Your task to perform on an android device: turn on showing notifications on the lock screen Image 0: 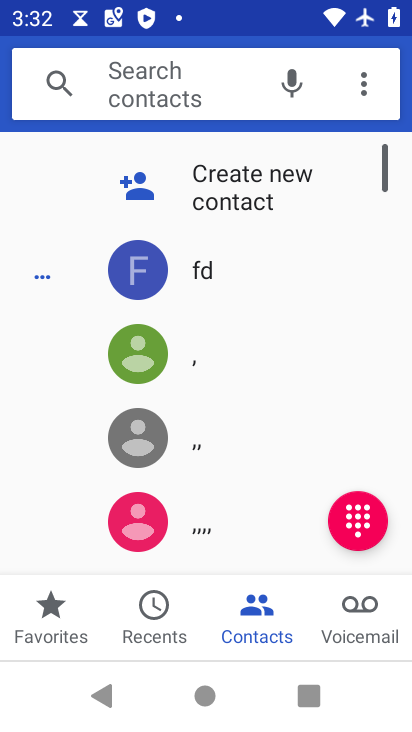
Step 0: press home button
Your task to perform on an android device: turn on showing notifications on the lock screen Image 1: 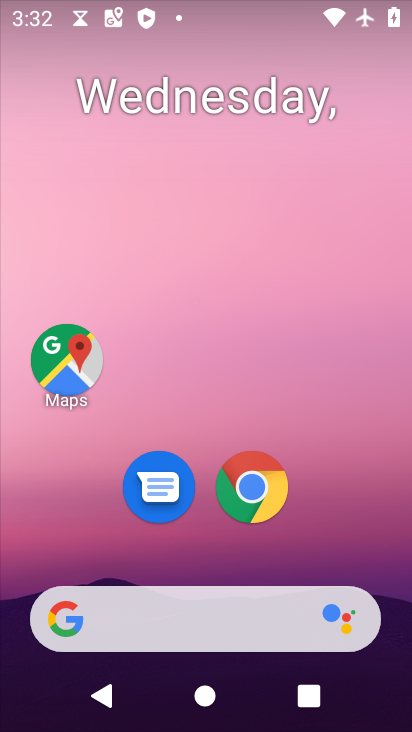
Step 1: drag from (325, 491) to (352, 94)
Your task to perform on an android device: turn on showing notifications on the lock screen Image 2: 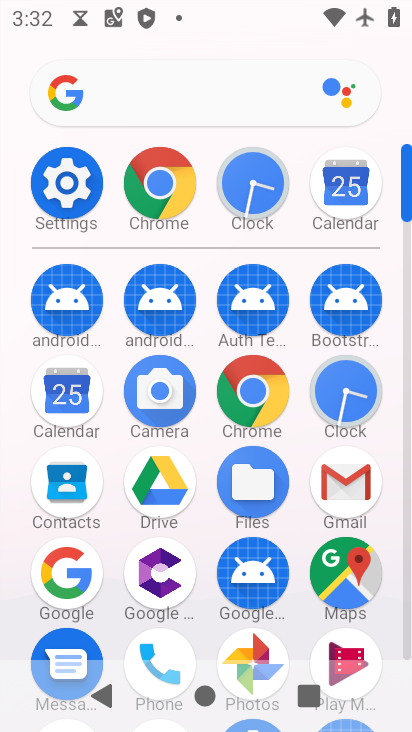
Step 2: drag from (374, 551) to (397, 81)
Your task to perform on an android device: turn on showing notifications on the lock screen Image 3: 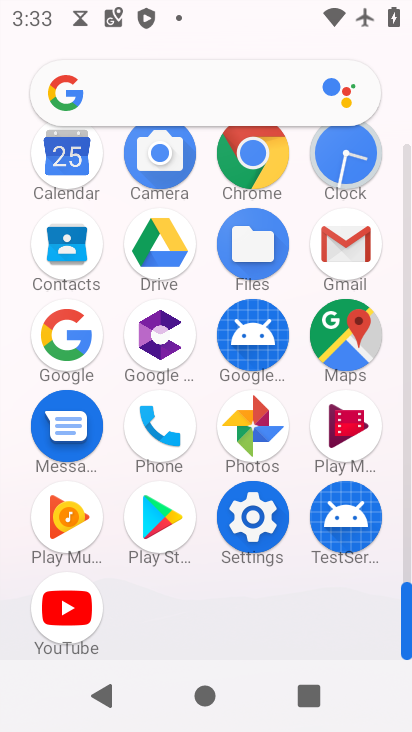
Step 3: click (77, 637)
Your task to perform on an android device: turn on showing notifications on the lock screen Image 4: 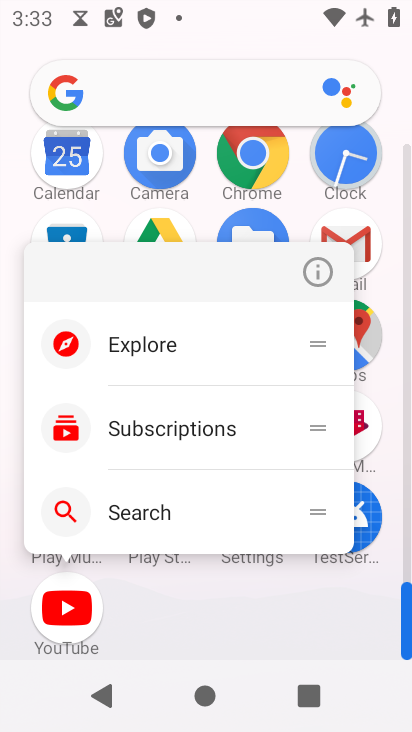
Step 4: click (68, 617)
Your task to perform on an android device: turn on showing notifications on the lock screen Image 5: 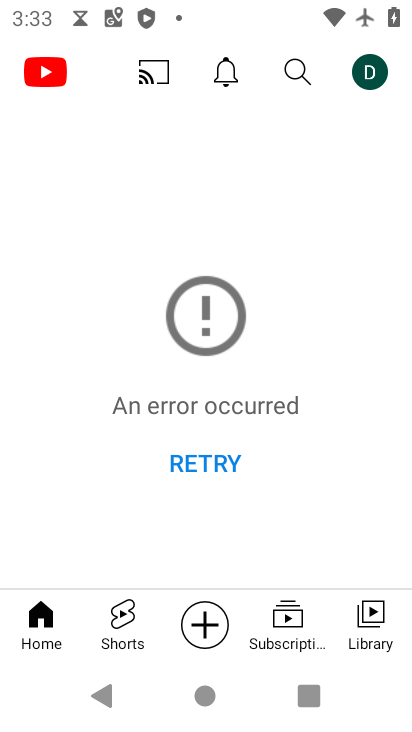
Step 5: press home button
Your task to perform on an android device: turn on showing notifications on the lock screen Image 6: 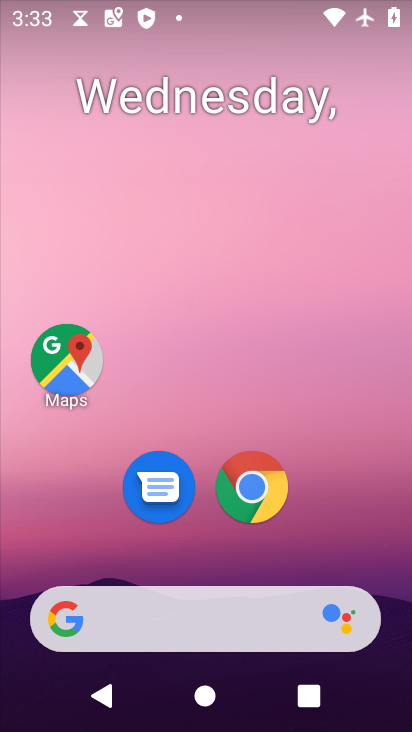
Step 6: drag from (373, 597) to (404, 117)
Your task to perform on an android device: turn on showing notifications on the lock screen Image 7: 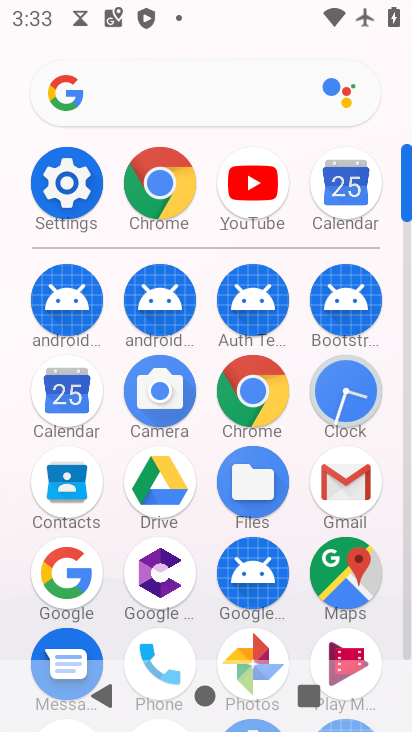
Step 7: click (64, 200)
Your task to perform on an android device: turn on showing notifications on the lock screen Image 8: 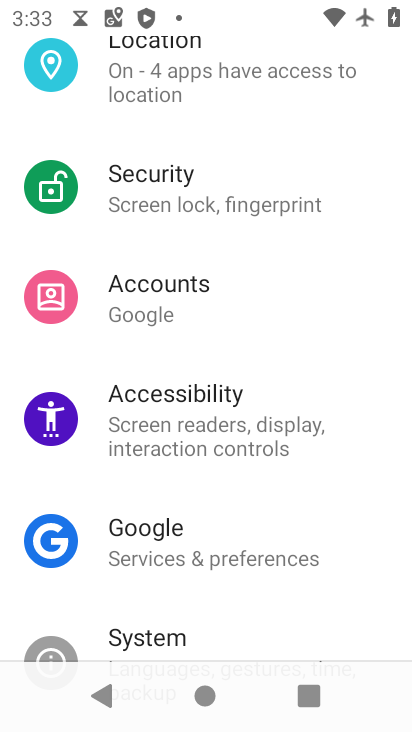
Step 8: drag from (64, 200) to (89, 636)
Your task to perform on an android device: turn on showing notifications on the lock screen Image 9: 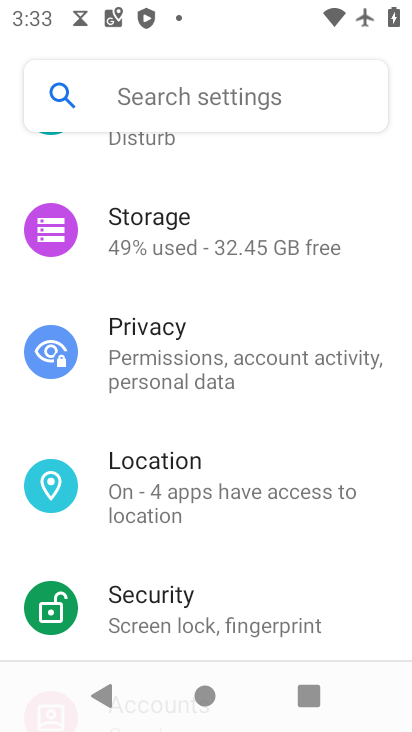
Step 9: drag from (159, 304) to (149, 675)
Your task to perform on an android device: turn on showing notifications on the lock screen Image 10: 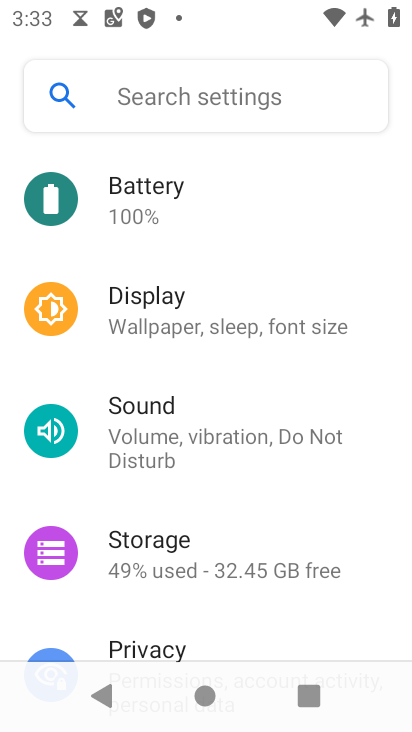
Step 10: drag from (199, 239) to (197, 626)
Your task to perform on an android device: turn on showing notifications on the lock screen Image 11: 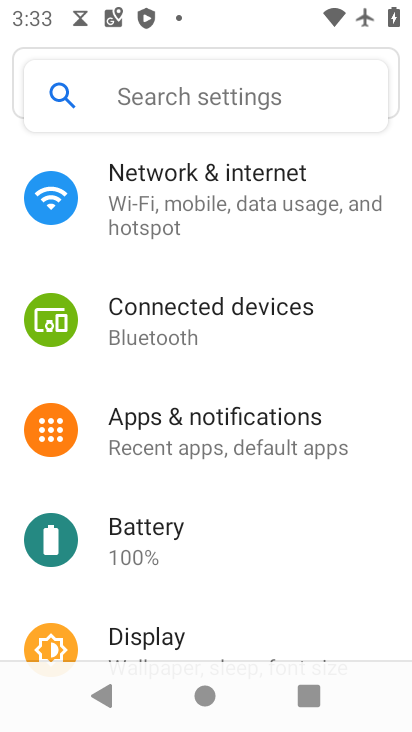
Step 11: click (229, 431)
Your task to perform on an android device: turn on showing notifications on the lock screen Image 12: 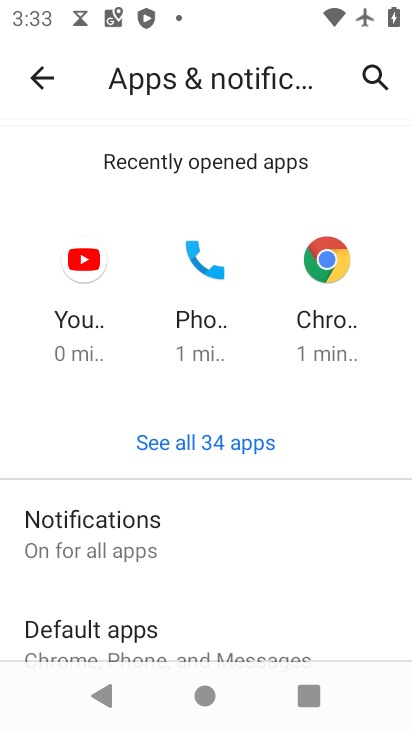
Step 12: click (100, 547)
Your task to perform on an android device: turn on showing notifications on the lock screen Image 13: 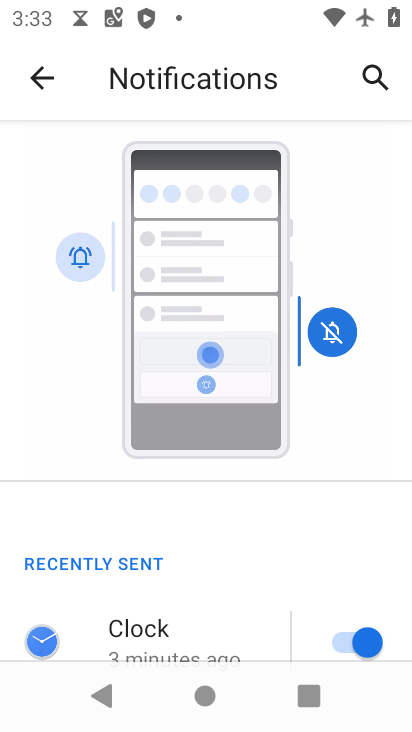
Step 13: drag from (101, 604) to (226, 138)
Your task to perform on an android device: turn on showing notifications on the lock screen Image 14: 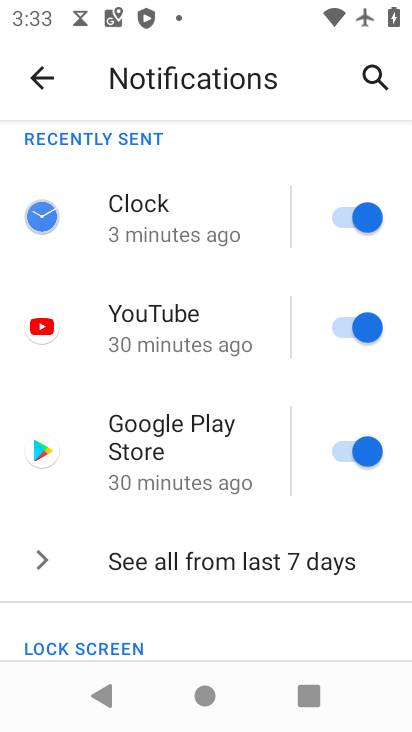
Step 14: drag from (183, 534) to (274, 103)
Your task to perform on an android device: turn on showing notifications on the lock screen Image 15: 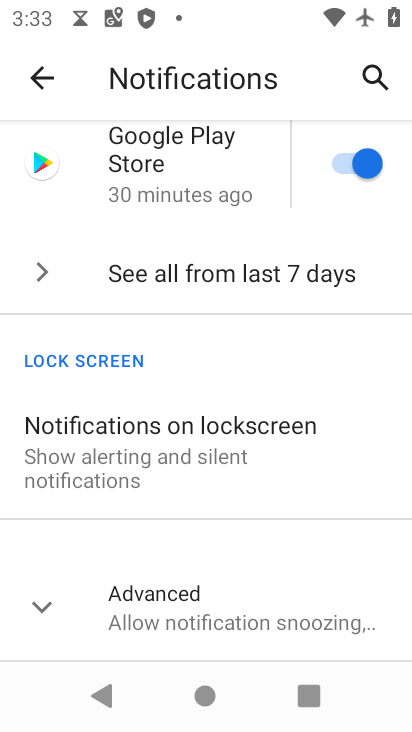
Step 15: click (152, 452)
Your task to perform on an android device: turn on showing notifications on the lock screen Image 16: 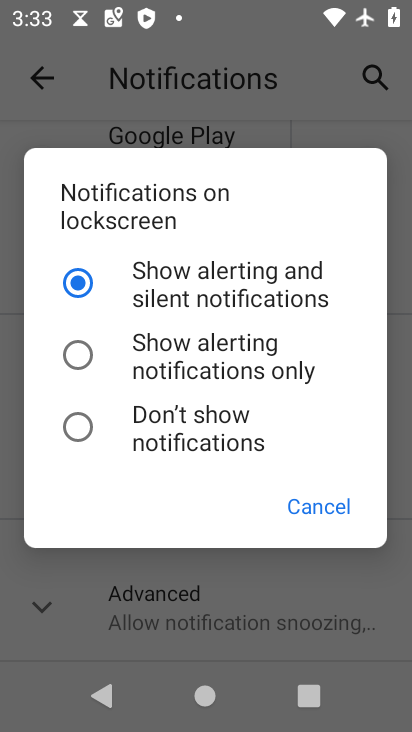
Step 16: click (78, 360)
Your task to perform on an android device: turn on showing notifications on the lock screen Image 17: 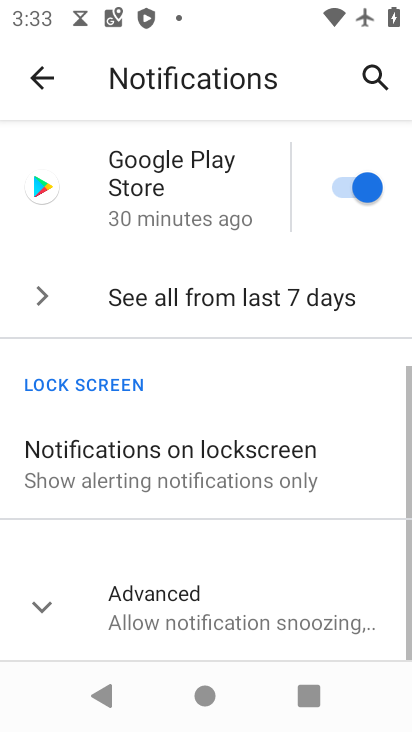
Step 17: task complete